Your task to perform on an android device: Open the map Image 0: 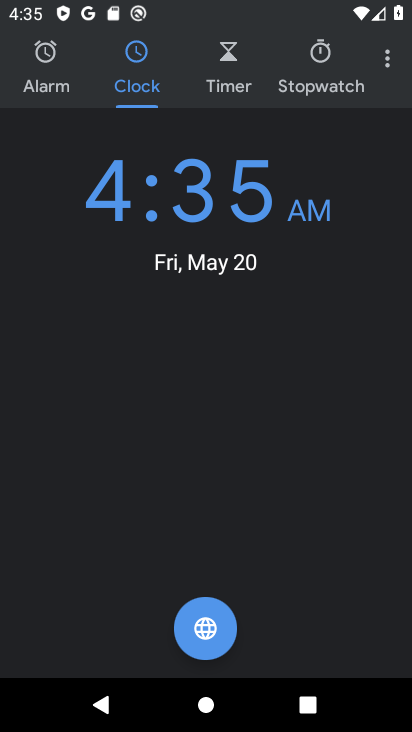
Step 0: press back button
Your task to perform on an android device: Open the map Image 1: 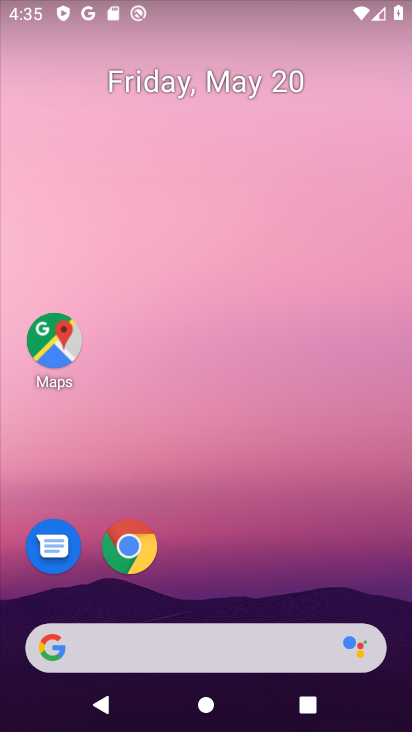
Step 1: click (51, 342)
Your task to perform on an android device: Open the map Image 2: 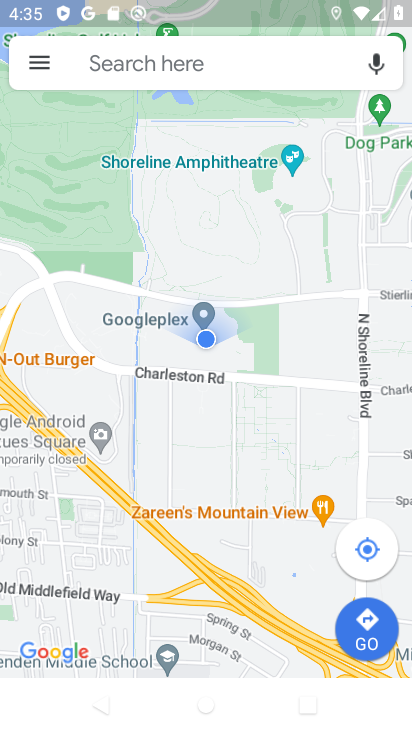
Step 2: task complete